Your task to perform on an android device: Check the weather Image 0: 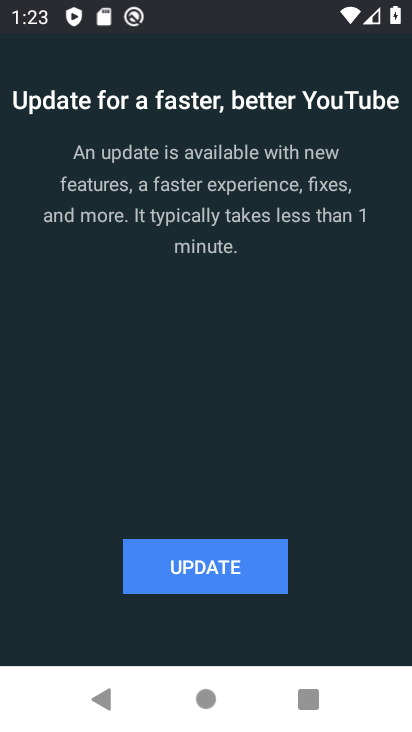
Step 0: press home button
Your task to perform on an android device: Check the weather Image 1: 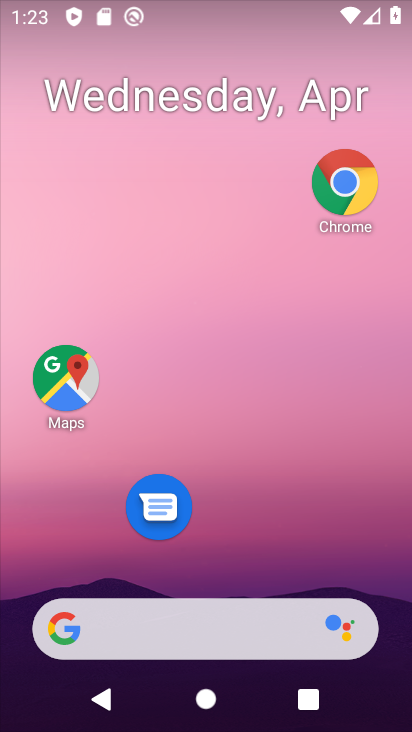
Step 1: click (251, 612)
Your task to perform on an android device: Check the weather Image 2: 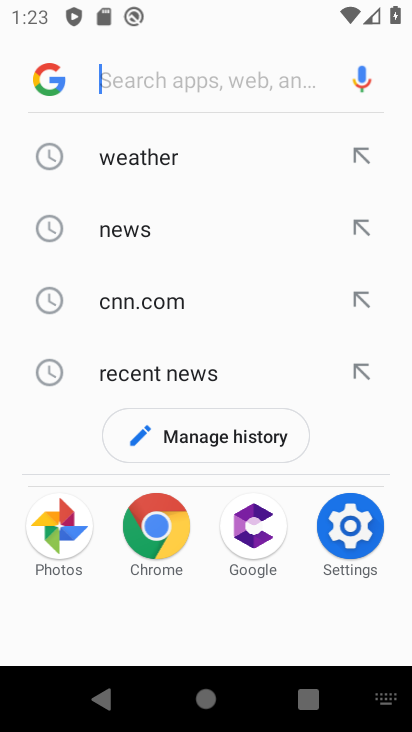
Step 2: type "Check the weather"
Your task to perform on an android device: Check the weather Image 3: 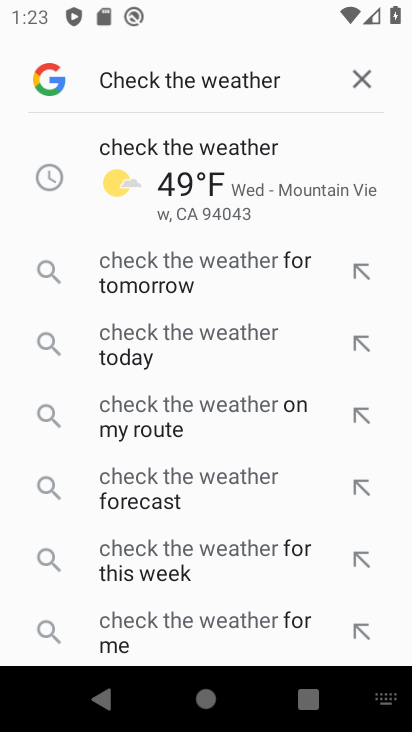
Step 3: click (270, 199)
Your task to perform on an android device: Check the weather Image 4: 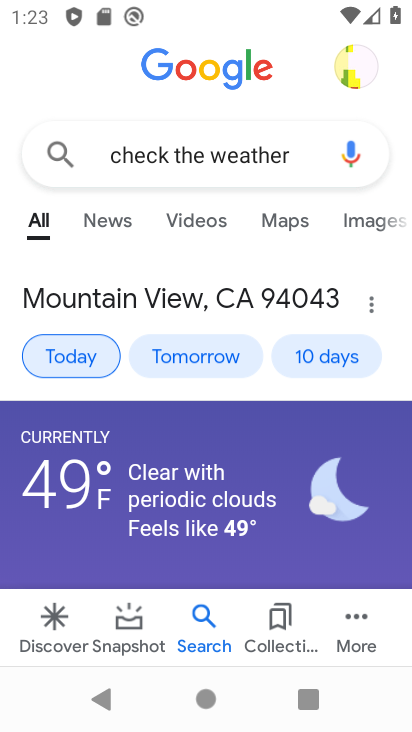
Step 4: task complete